Your task to perform on an android device: check android version Image 0: 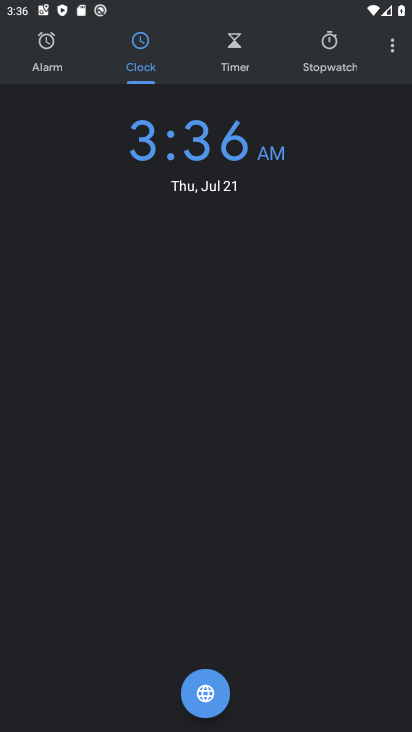
Step 0: press home button
Your task to perform on an android device: check android version Image 1: 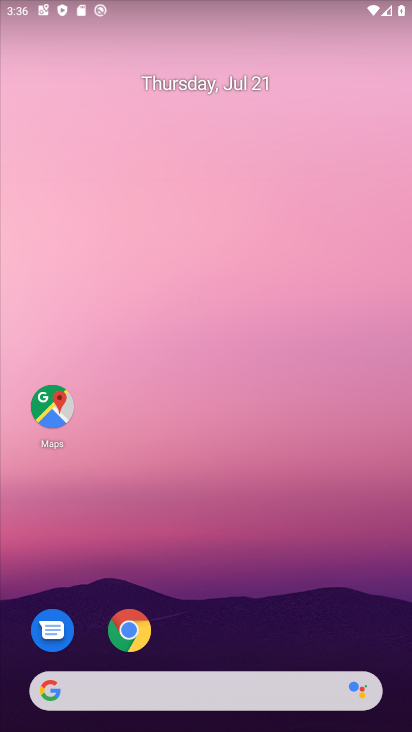
Step 1: drag from (185, 665) to (143, 95)
Your task to perform on an android device: check android version Image 2: 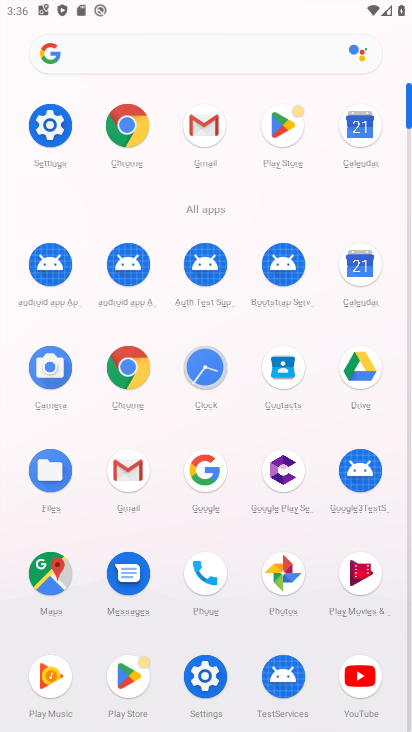
Step 2: click (43, 124)
Your task to perform on an android device: check android version Image 3: 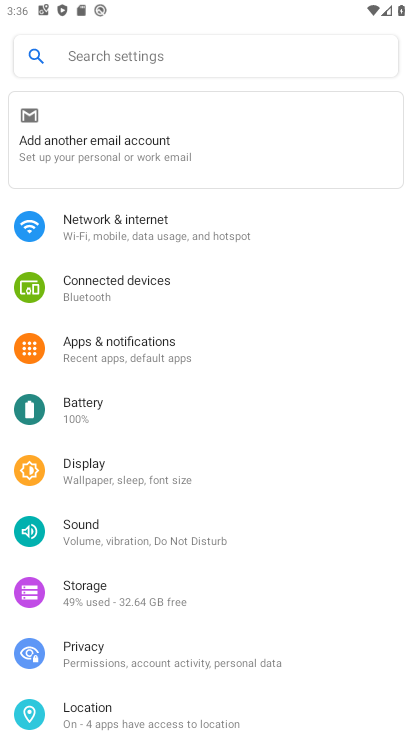
Step 3: drag from (224, 593) to (171, 192)
Your task to perform on an android device: check android version Image 4: 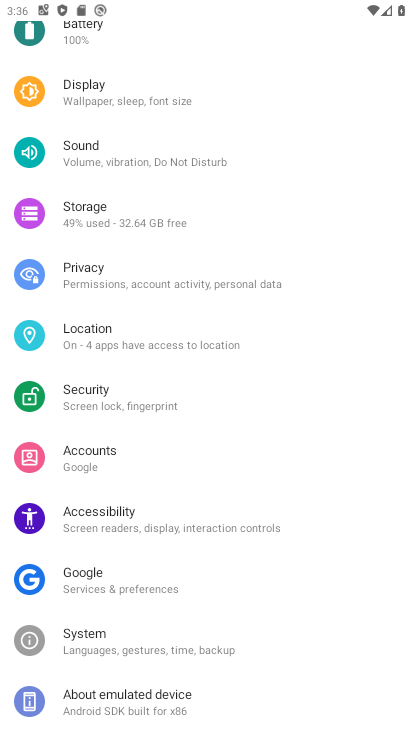
Step 4: drag from (191, 564) to (150, 154)
Your task to perform on an android device: check android version Image 5: 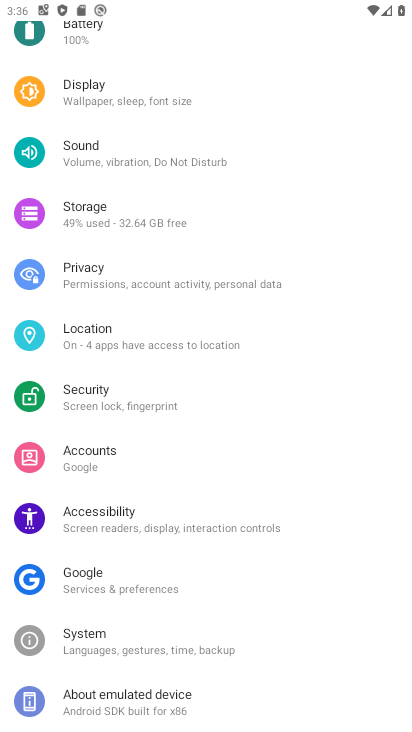
Step 5: click (100, 706)
Your task to perform on an android device: check android version Image 6: 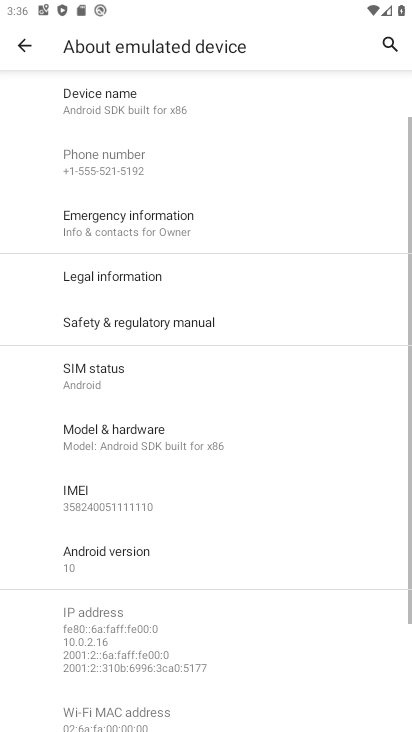
Step 6: click (119, 554)
Your task to perform on an android device: check android version Image 7: 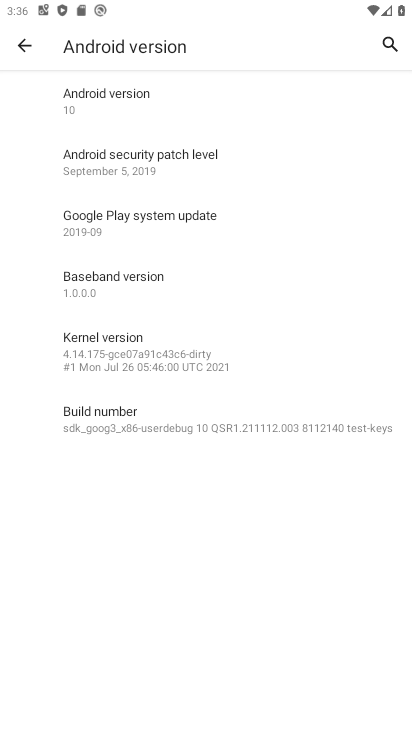
Step 7: task complete